Your task to perform on an android device: Go to notification settings Image 0: 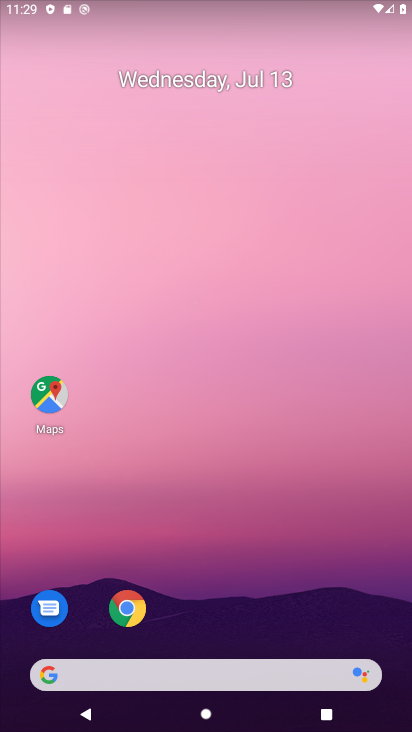
Step 0: drag from (163, 697) to (216, 115)
Your task to perform on an android device: Go to notification settings Image 1: 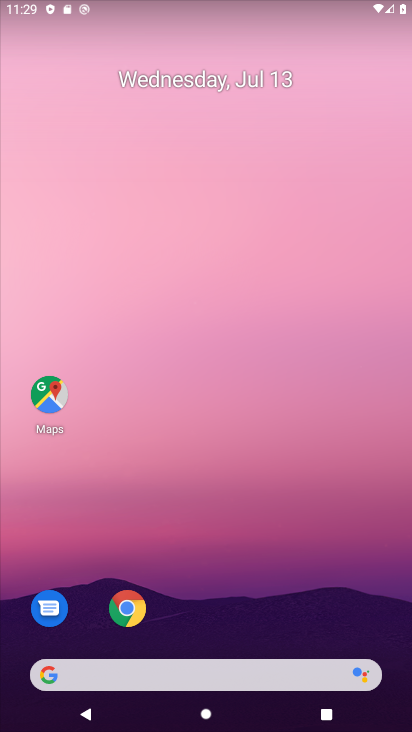
Step 1: drag from (136, 681) to (212, 2)
Your task to perform on an android device: Go to notification settings Image 2: 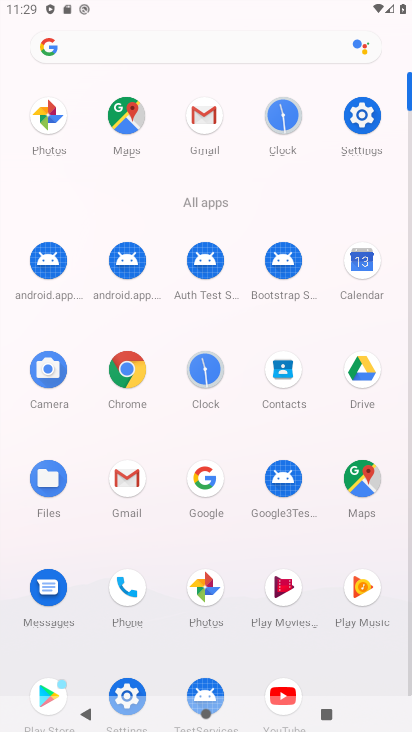
Step 2: click (353, 110)
Your task to perform on an android device: Go to notification settings Image 3: 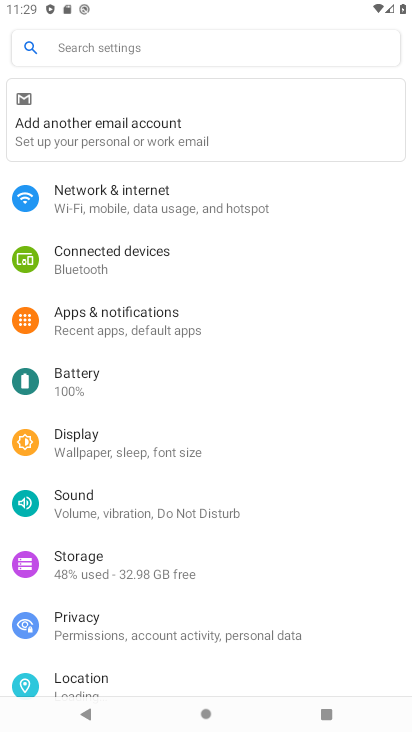
Step 3: click (131, 317)
Your task to perform on an android device: Go to notification settings Image 4: 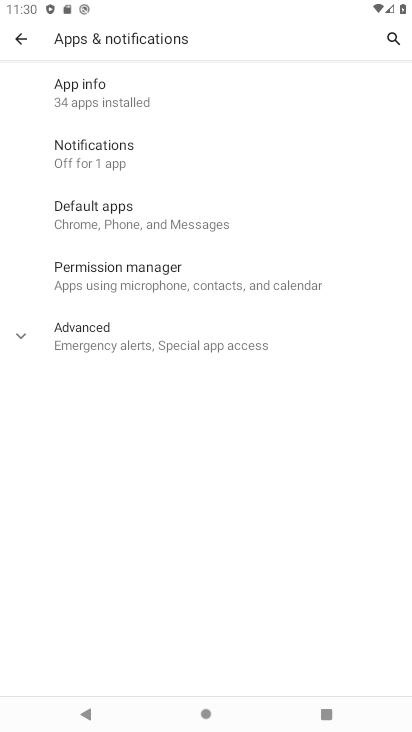
Step 4: task complete